Your task to perform on an android device: uninstall "PUBG MOBILE" Image 0: 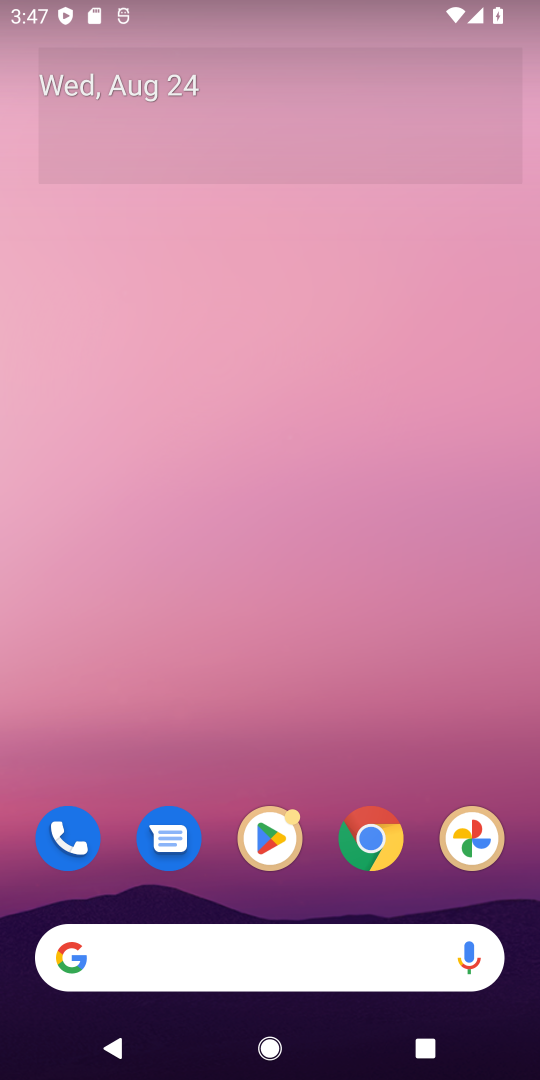
Step 0: press home button
Your task to perform on an android device: uninstall "PUBG MOBILE" Image 1: 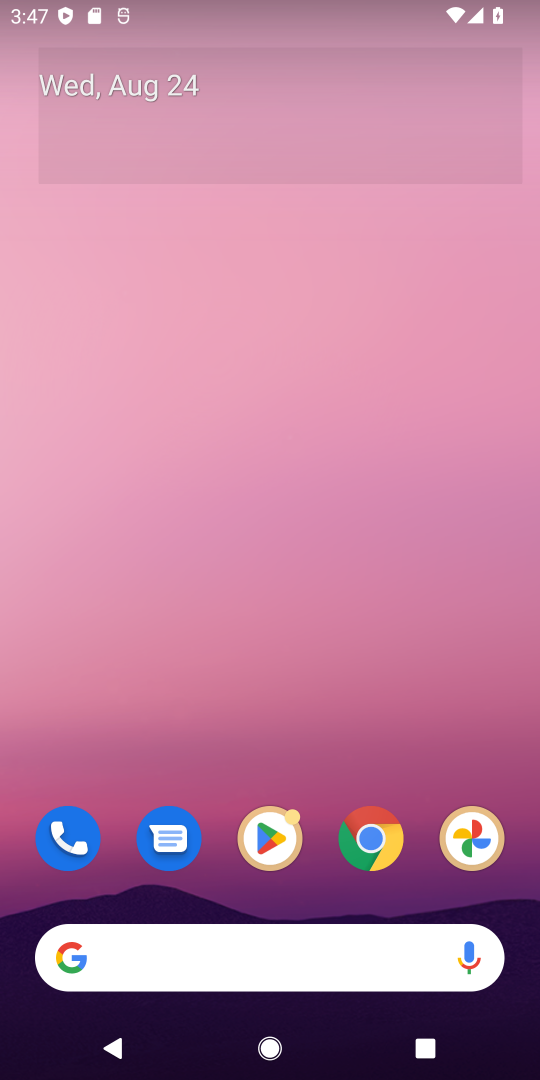
Step 1: click (271, 833)
Your task to perform on an android device: uninstall "PUBG MOBILE" Image 2: 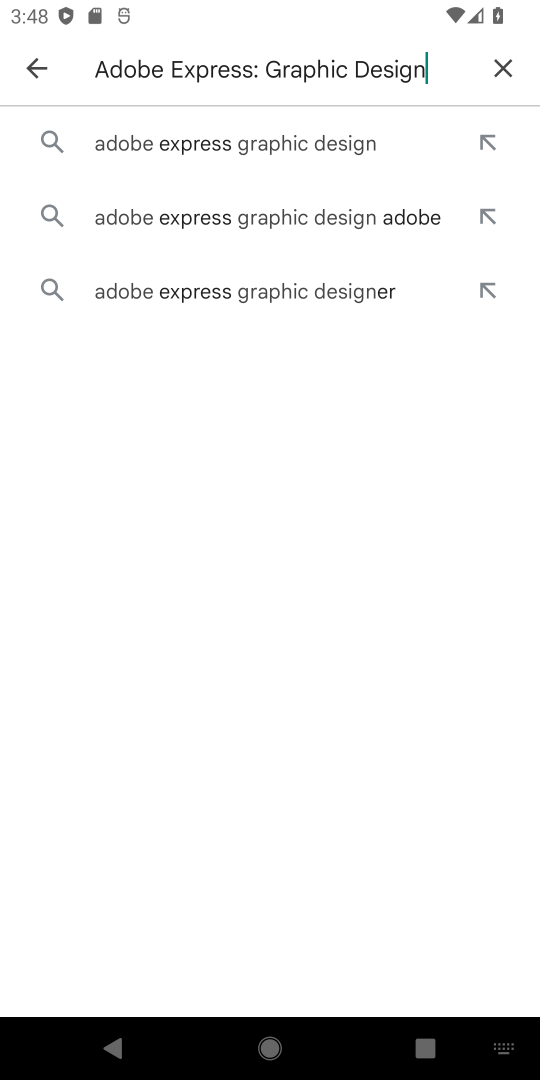
Step 2: click (509, 68)
Your task to perform on an android device: uninstall "PUBG MOBILE" Image 3: 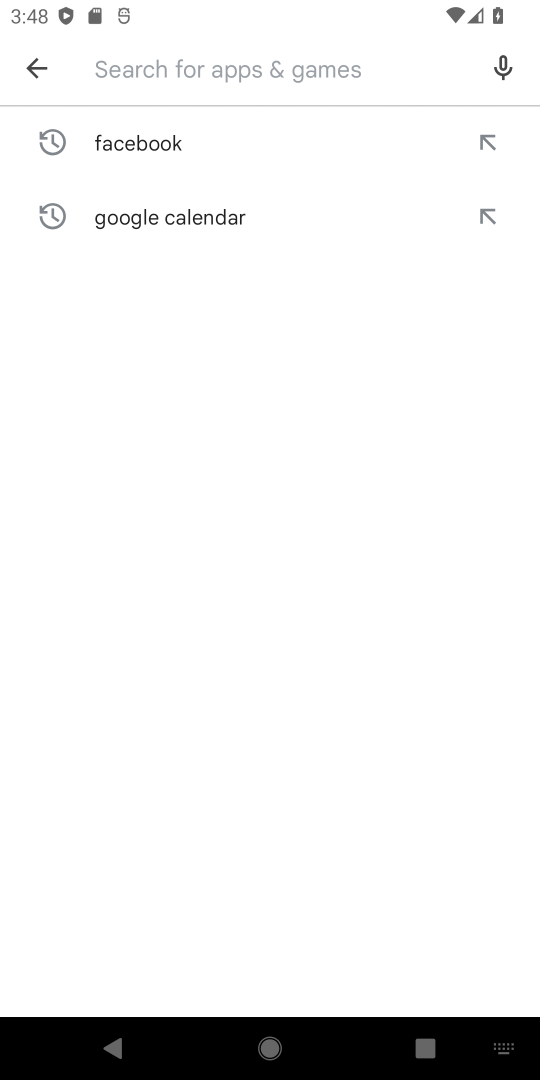
Step 3: type "PUBG MOBILE"
Your task to perform on an android device: uninstall "PUBG MOBILE" Image 4: 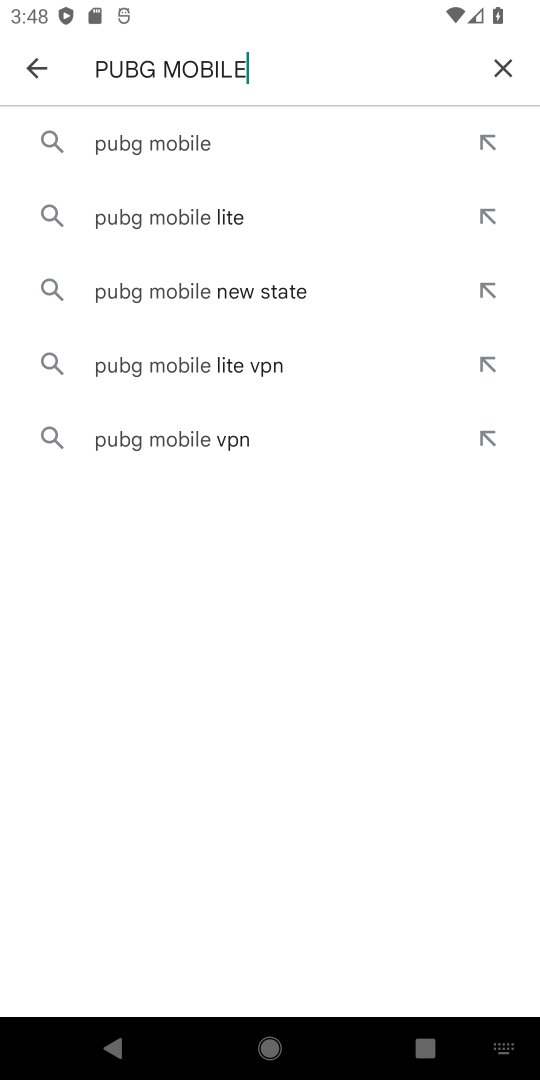
Step 4: click (221, 133)
Your task to perform on an android device: uninstall "PUBG MOBILE" Image 5: 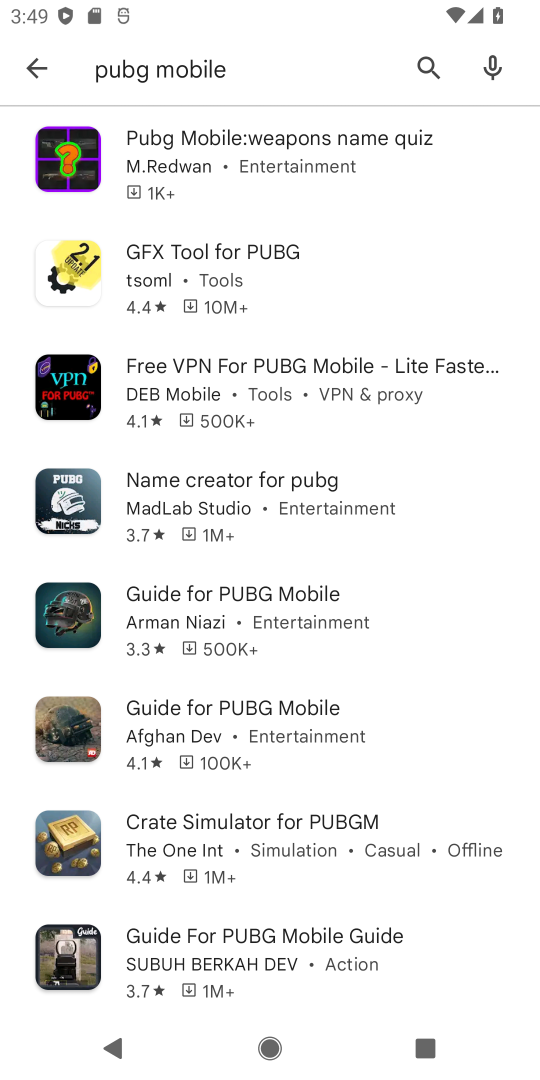
Step 5: task complete